Your task to perform on an android device: visit the assistant section in the google photos Image 0: 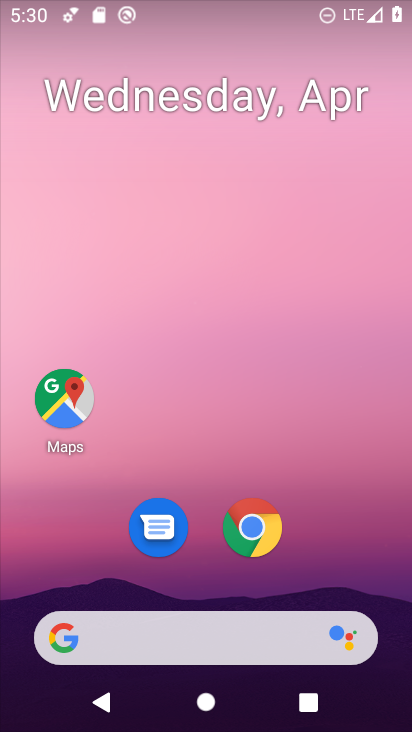
Step 0: drag from (374, 590) to (364, 29)
Your task to perform on an android device: visit the assistant section in the google photos Image 1: 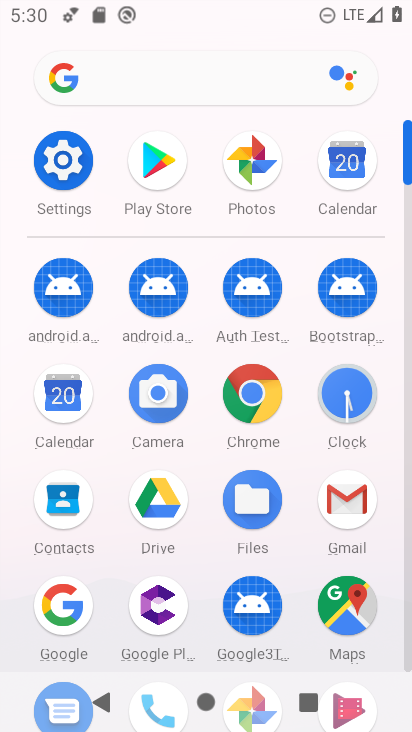
Step 1: click (249, 170)
Your task to perform on an android device: visit the assistant section in the google photos Image 2: 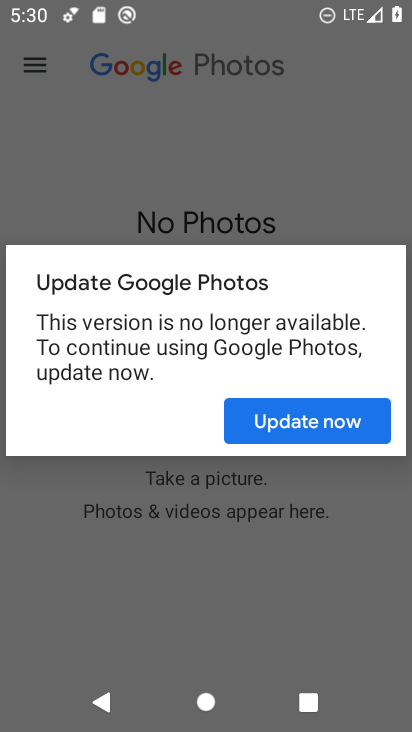
Step 2: click (305, 411)
Your task to perform on an android device: visit the assistant section in the google photos Image 3: 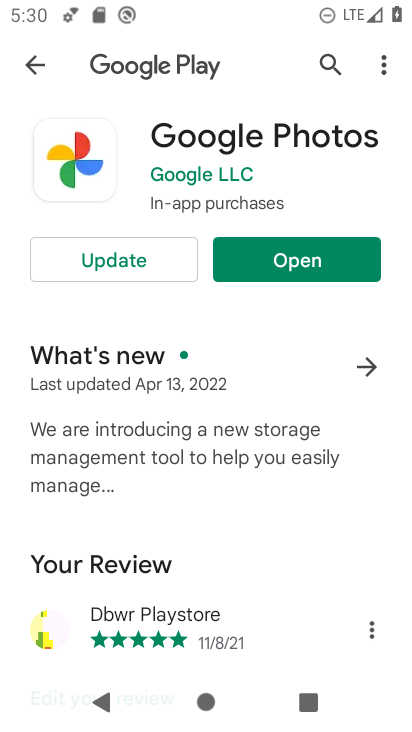
Step 3: click (99, 260)
Your task to perform on an android device: visit the assistant section in the google photos Image 4: 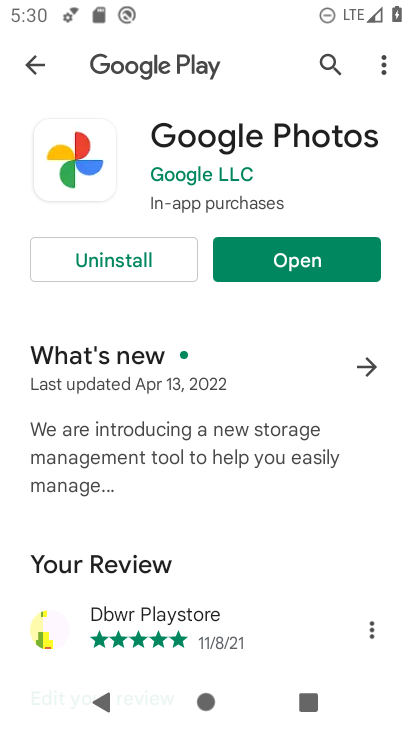
Step 4: click (300, 255)
Your task to perform on an android device: visit the assistant section in the google photos Image 5: 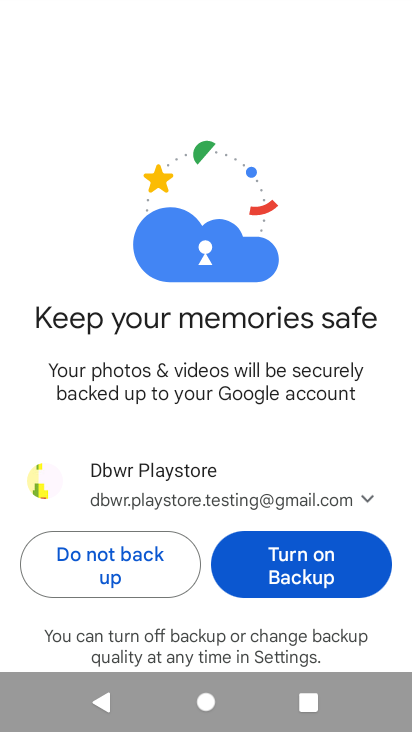
Step 5: click (111, 571)
Your task to perform on an android device: visit the assistant section in the google photos Image 6: 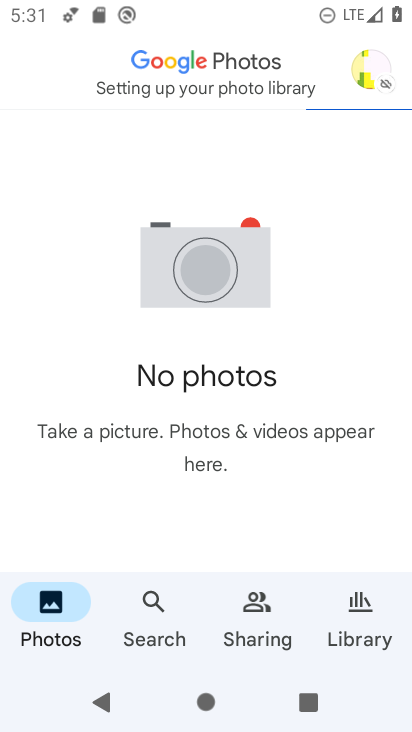
Step 6: click (362, 80)
Your task to perform on an android device: visit the assistant section in the google photos Image 7: 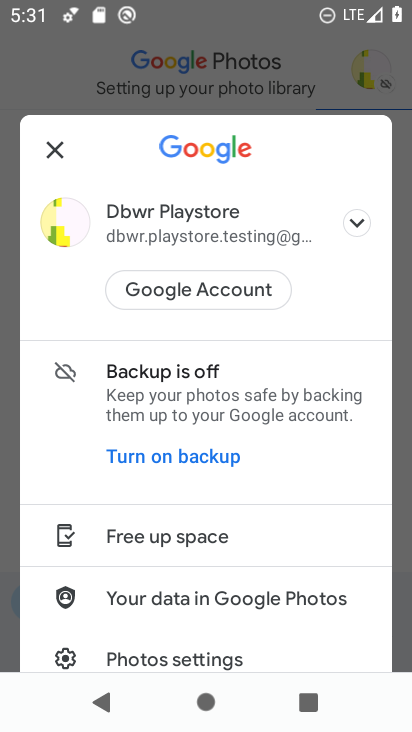
Step 7: task complete